Your task to perform on an android device: Go to eBay Image 0: 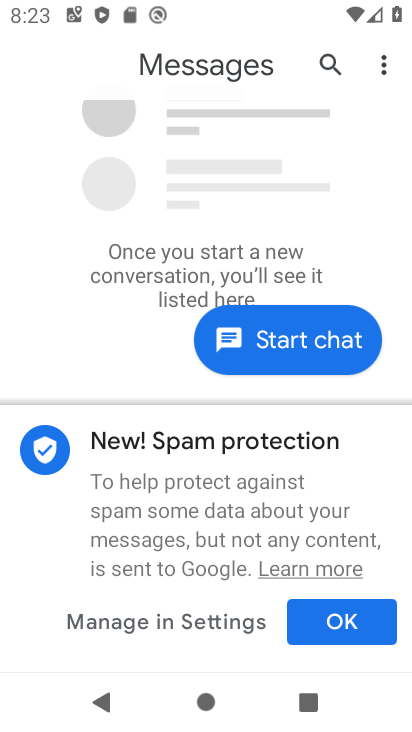
Step 0: press home button
Your task to perform on an android device: Go to eBay Image 1: 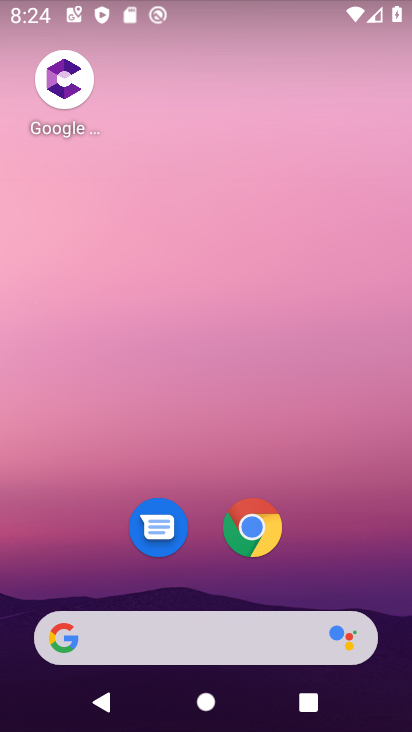
Step 1: click (256, 540)
Your task to perform on an android device: Go to eBay Image 2: 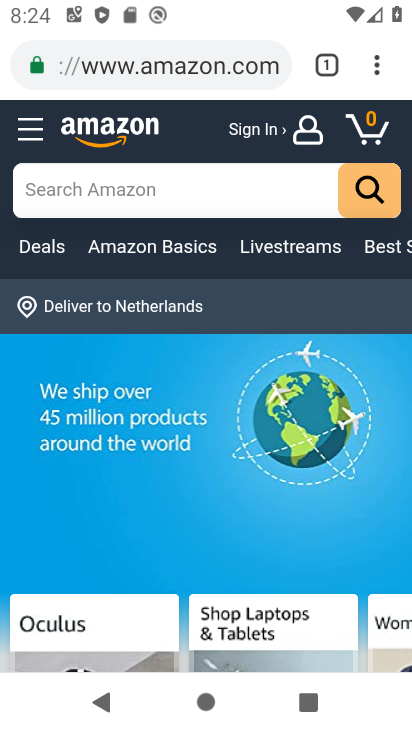
Step 2: drag from (381, 66) to (378, 115)
Your task to perform on an android device: Go to eBay Image 3: 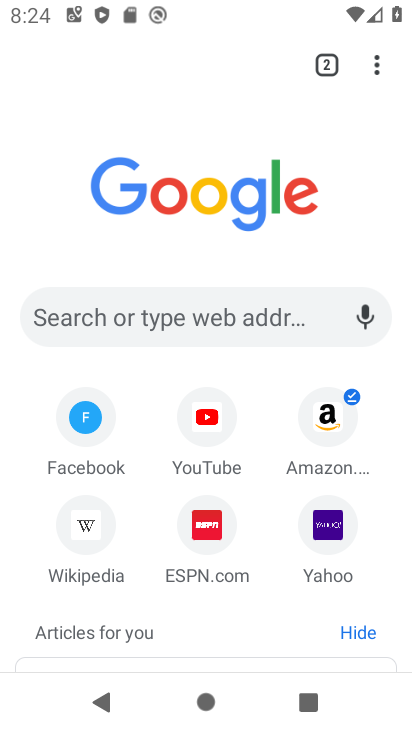
Step 3: click (196, 339)
Your task to perform on an android device: Go to eBay Image 4: 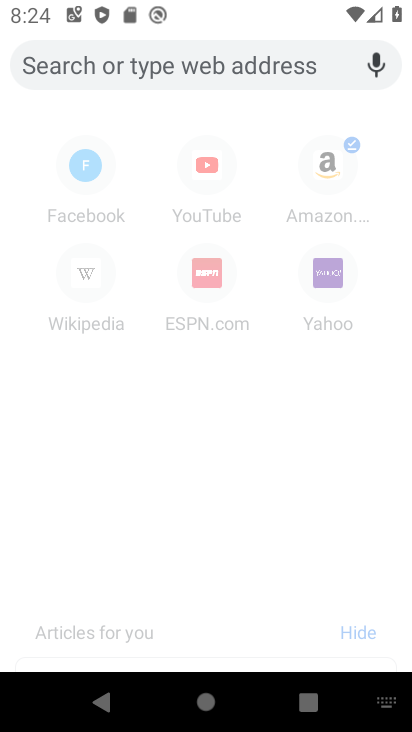
Step 4: type "eBay"
Your task to perform on an android device: Go to eBay Image 5: 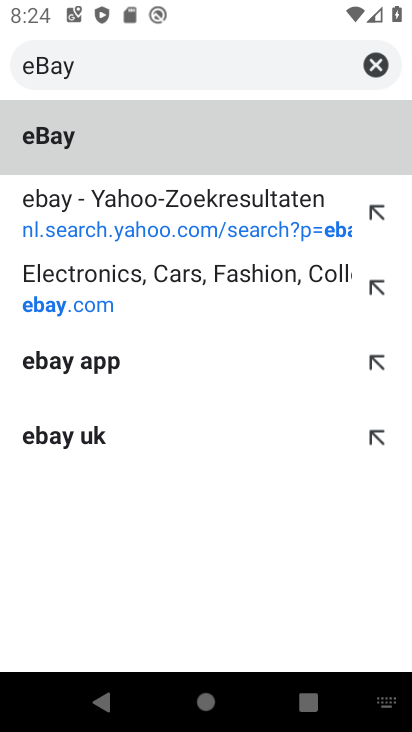
Step 5: click (103, 126)
Your task to perform on an android device: Go to eBay Image 6: 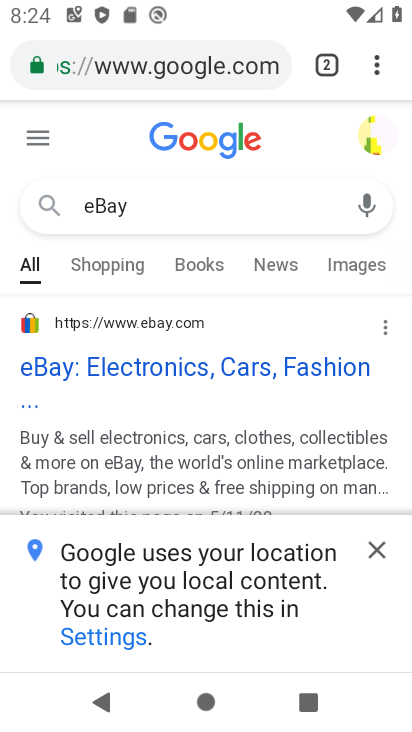
Step 6: click (112, 376)
Your task to perform on an android device: Go to eBay Image 7: 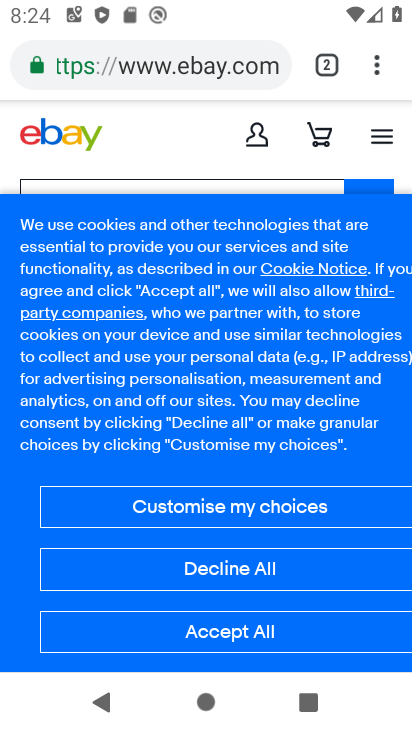
Step 7: click (275, 646)
Your task to perform on an android device: Go to eBay Image 8: 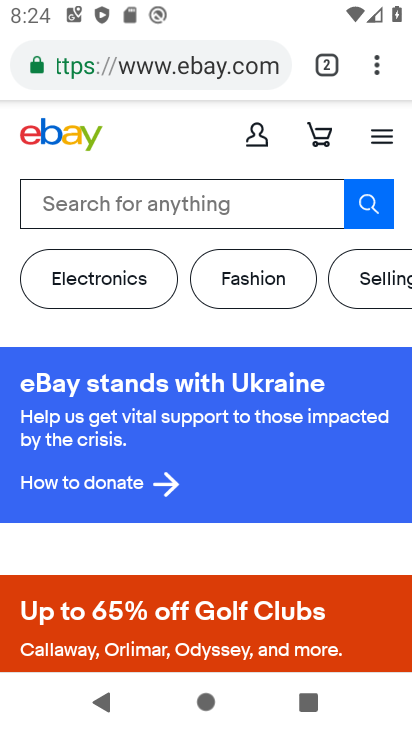
Step 8: task complete